Your task to perform on an android device: manage bookmarks in the chrome app Image 0: 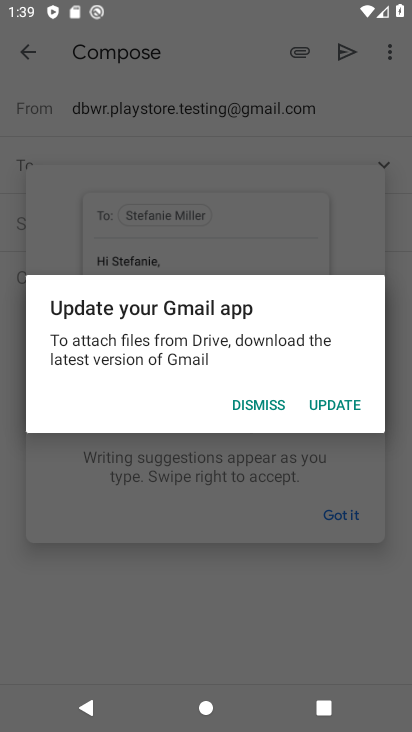
Step 0: press home button
Your task to perform on an android device: manage bookmarks in the chrome app Image 1: 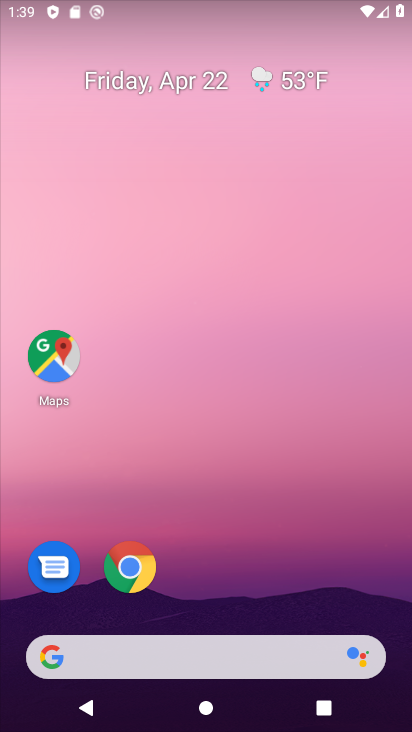
Step 1: drag from (250, 578) to (321, 110)
Your task to perform on an android device: manage bookmarks in the chrome app Image 2: 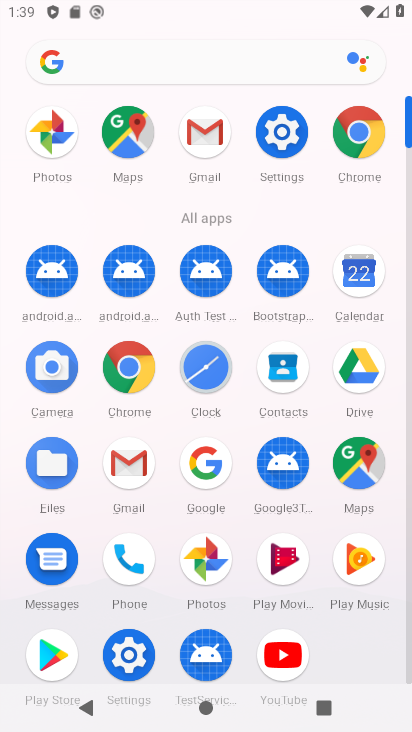
Step 2: click (360, 131)
Your task to perform on an android device: manage bookmarks in the chrome app Image 3: 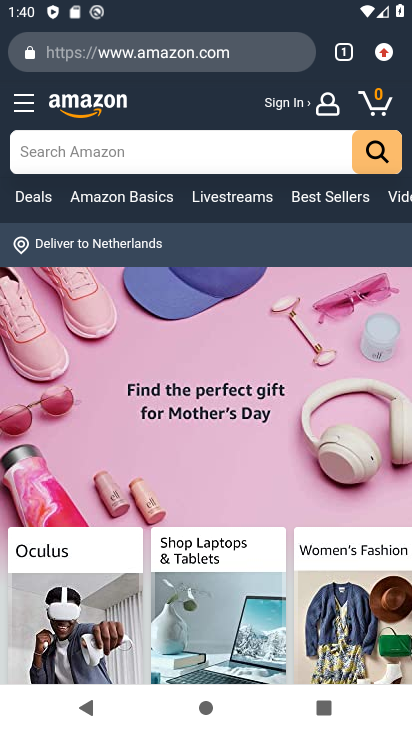
Step 3: task complete